Your task to perform on an android device: add a contact in the contacts app Image 0: 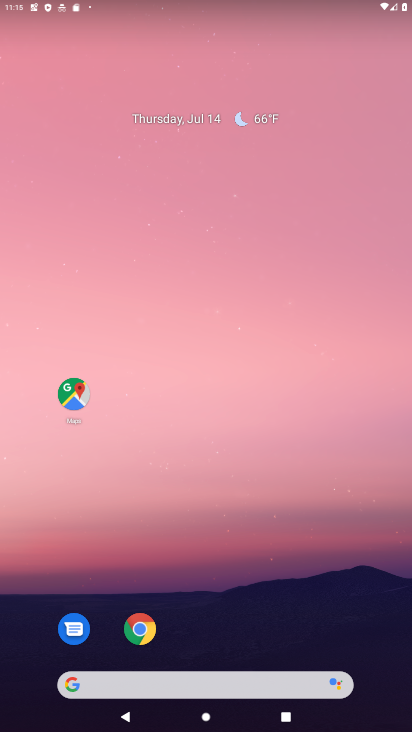
Step 0: press home button
Your task to perform on an android device: add a contact in the contacts app Image 1: 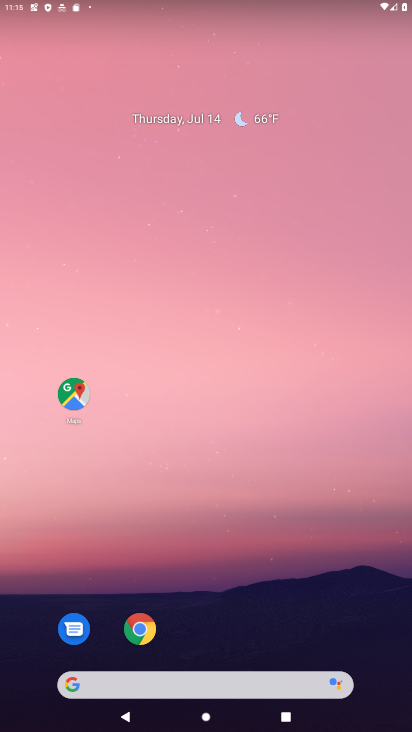
Step 1: drag from (262, 612) to (311, 120)
Your task to perform on an android device: add a contact in the contacts app Image 2: 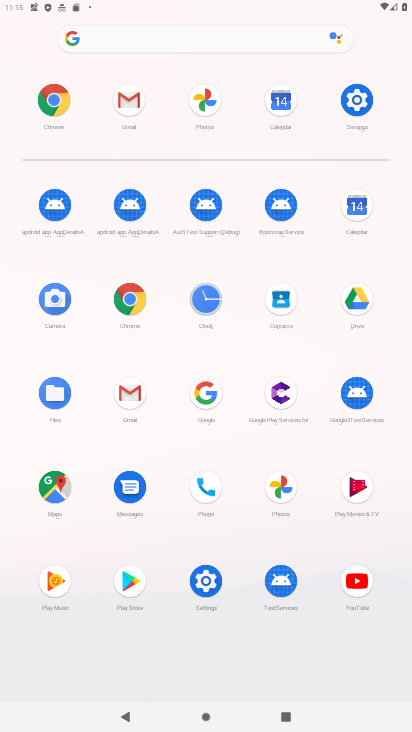
Step 2: click (279, 303)
Your task to perform on an android device: add a contact in the contacts app Image 3: 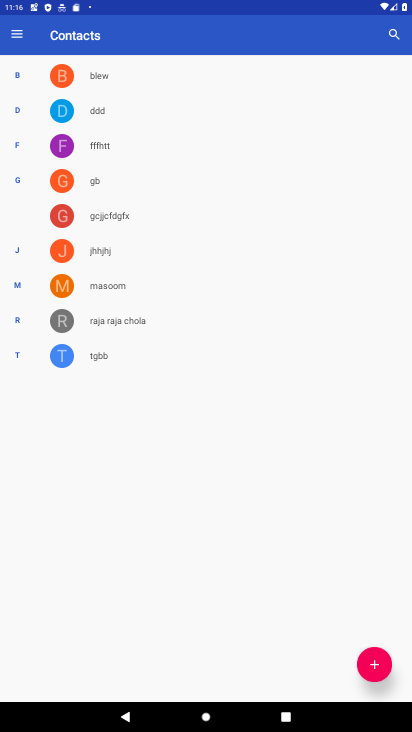
Step 3: click (366, 660)
Your task to perform on an android device: add a contact in the contacts app Image 4: 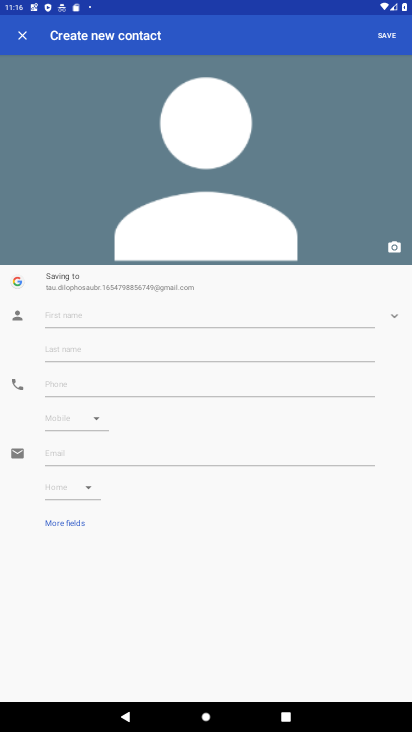
Step 4: click (132, 316)
Your task to perform on an android device: add a contact in the contacts app Image 5: 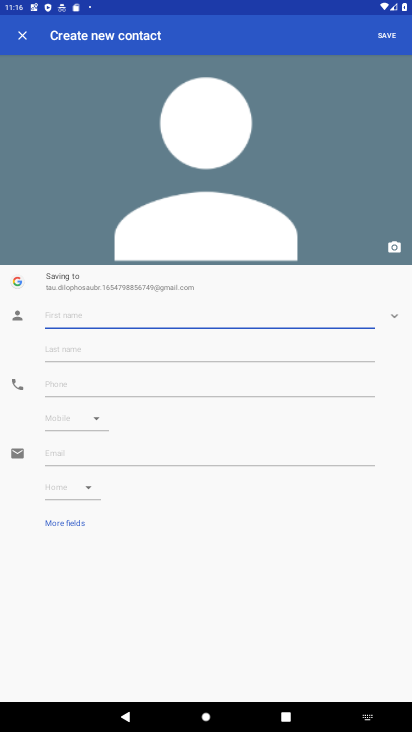
Step 5: type "hghgfhhkyukf"
Your task to perform on an android device: add a contact in the contacts app Image 6: 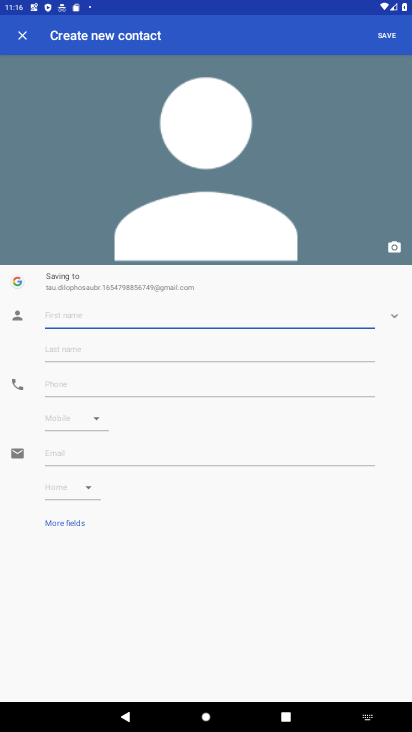
Step 6: click (82, 312)
Your task to perform on an android device: add a contact in the contacts app Image 7: 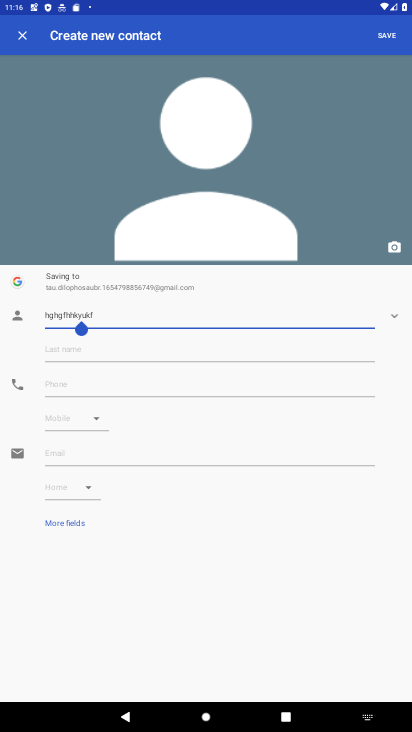
Step 7: click (97, 385)
Your task to perform on an android device: add a contact in the contacts app Image 8: 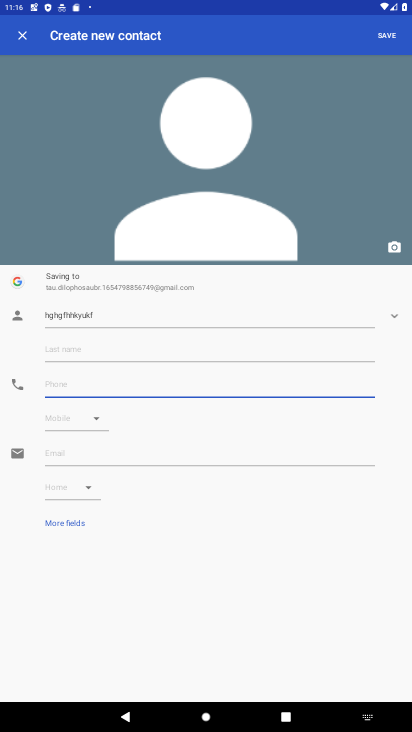
Step 8: type "544647466776"
Your task to perform on an android device: add a contact in the contacts app Image 9: 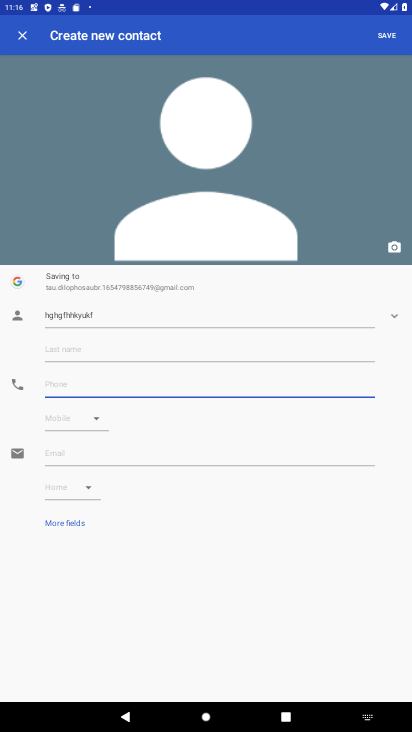
Step 9: click (63, 384)
Your task to perform on an android device: add a contact in the contacts app Image 10: 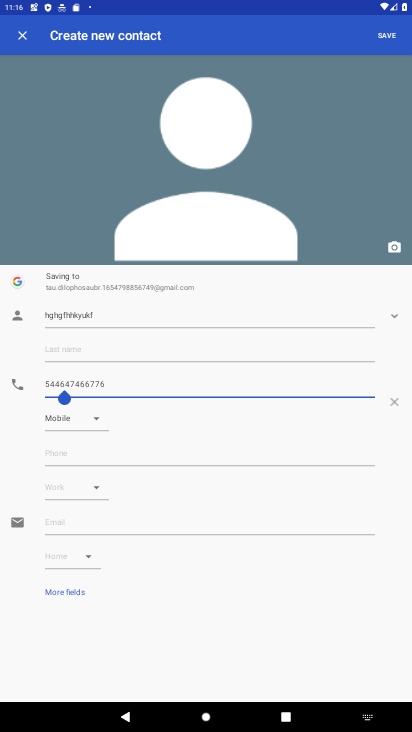
Step 10: click (390, 36)
Your task to perform on an android device: add a contact in the contacts app Image 11: 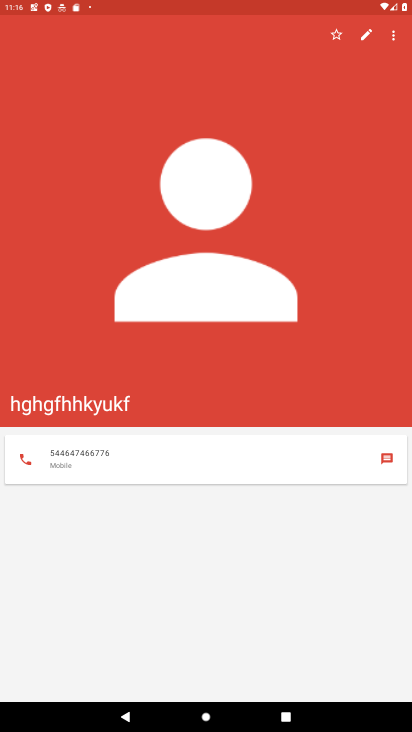
Step 11: task complete